Your task to perform on an android device: Open settings Image 0: 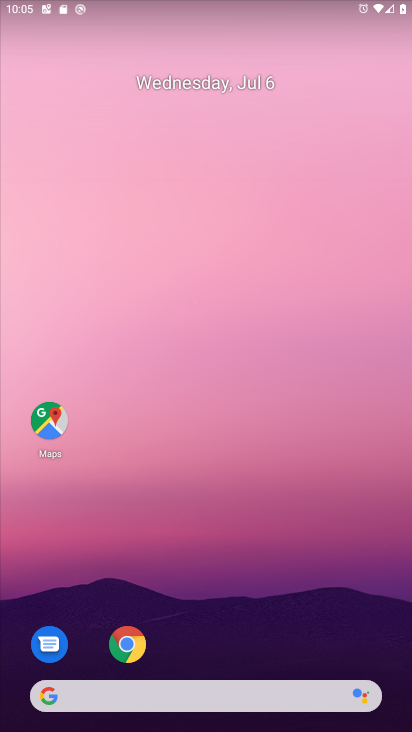
Step 0: drag from (238, 646) to (232, 156)
Your task to perform on an android device: Open settings Image 1: 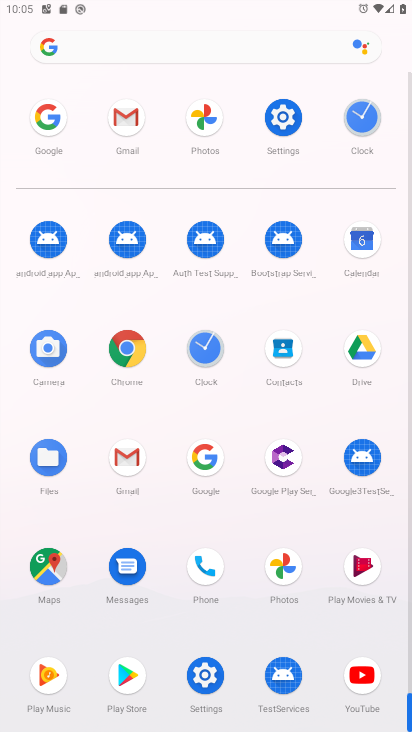
Step 1: click (288, 130)
Your task to perform on an android device: Open settings Image 2: 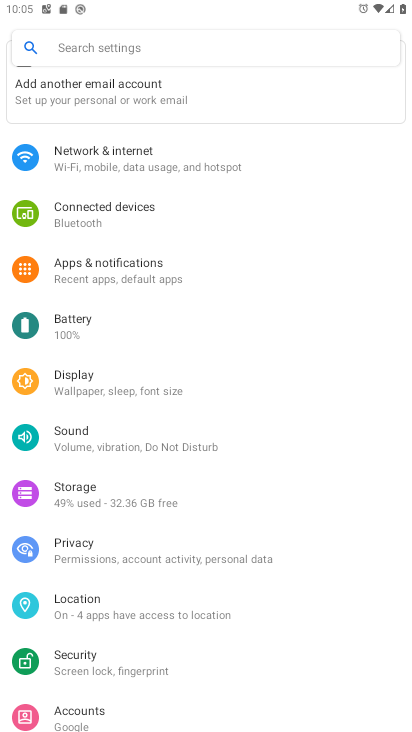
Step 2: task complete